Your task to perform on an android device: Do I have any events today? Image 0: 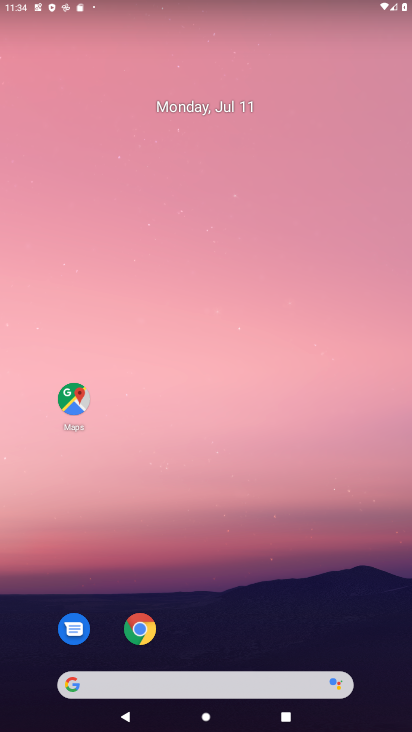
Step 0: drag from (283, 619) to (212, 13)
Your task to perform on an android device: Do I have any events today? Image 1: 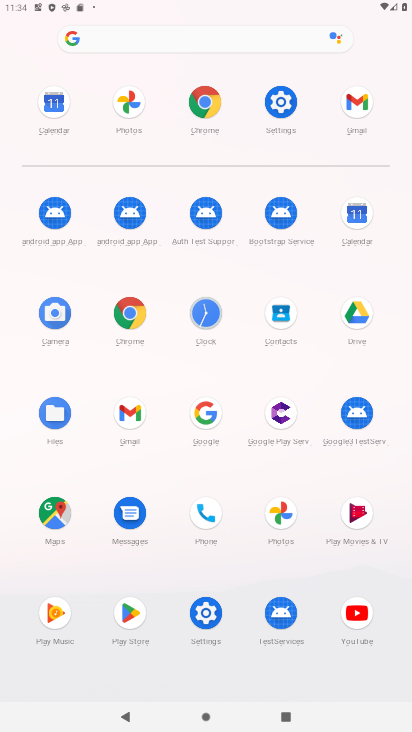
Step 1: click (44, 120)
Your task to perform on an android device: Do I have any events today? Image 2: 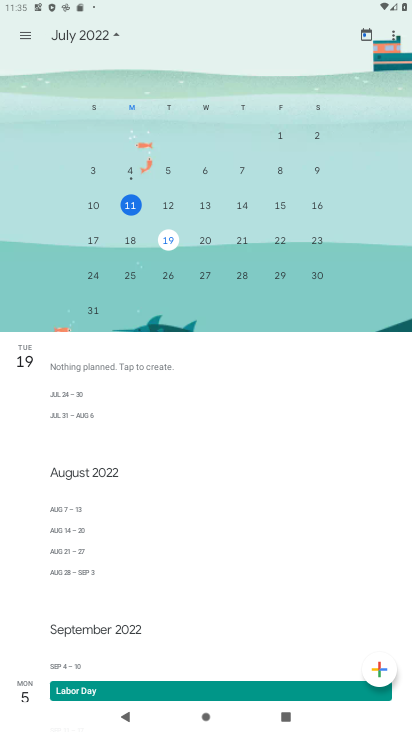
Step 2: click (171, 206)
Your task to perform on an android device: Do I have any events today? Image 3: 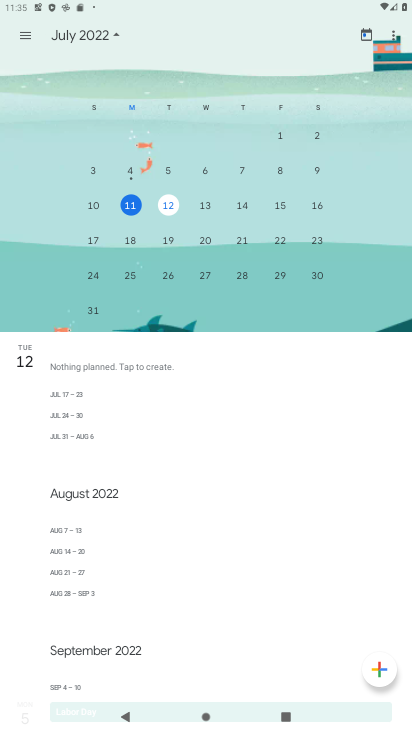
Step 3: click (138, 206)
Your task to perform on an android device: Do I have any events today? Image 4: 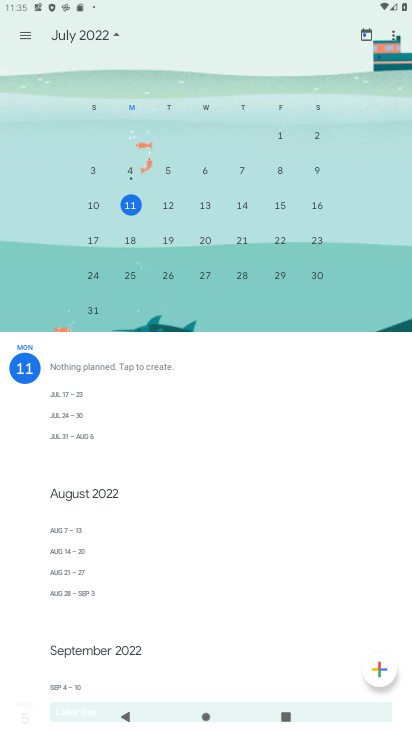
Step 4: task complete